Your task to perform on an android device: Open Google Chrome and open the bookmarks view Image 0: 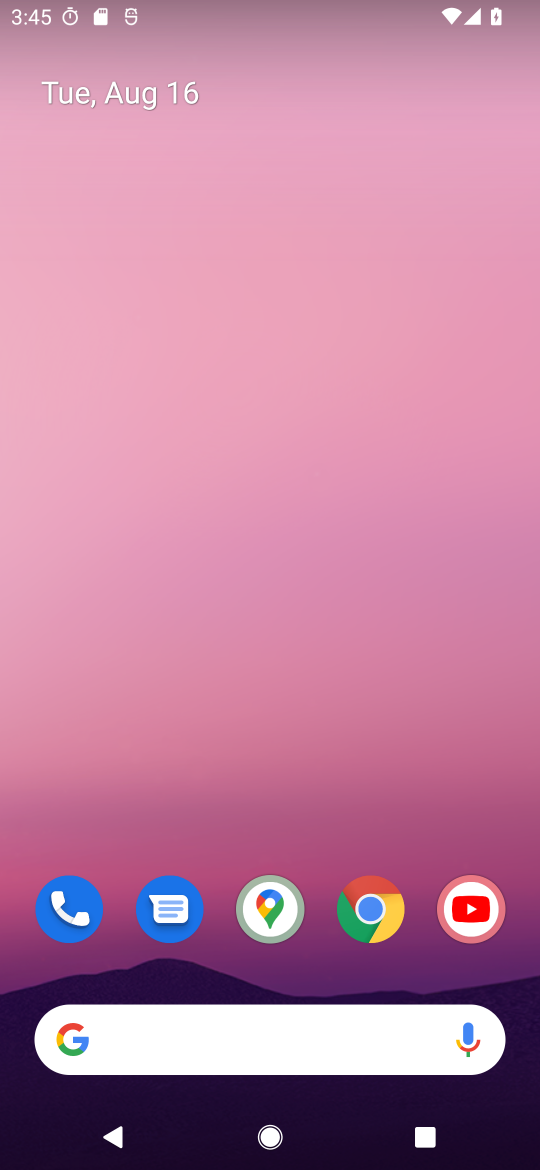
Step 0: click (368, 907)
Your task to perform on an android device: Open Google Chrome and open the bookmarks view Image 1: 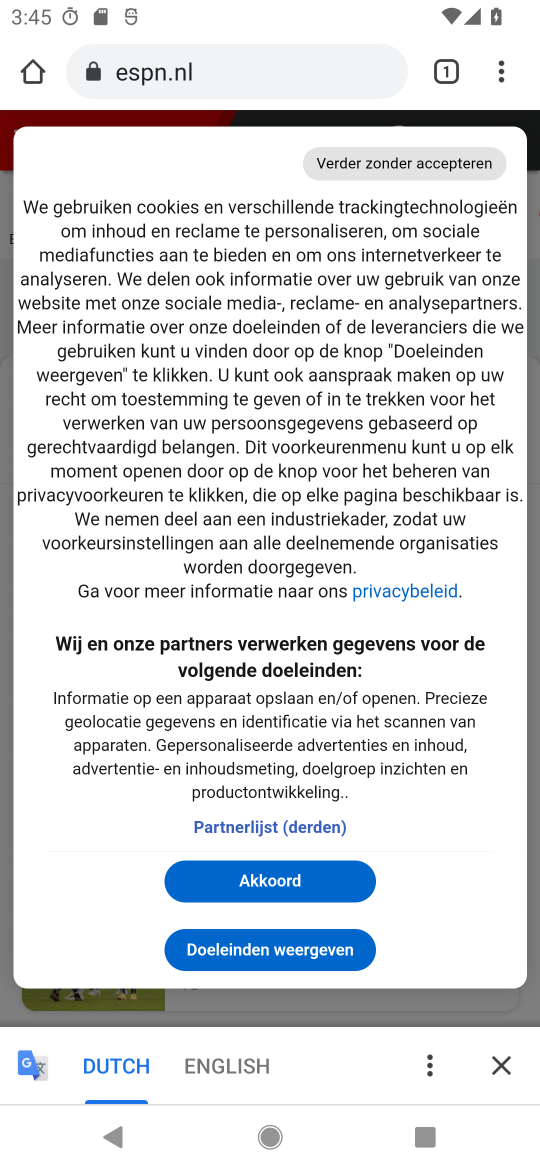
Step 1: click (500, 75)
Your task to perform on an android device: Open Google Chrome and open the bookmarks view Image 2: 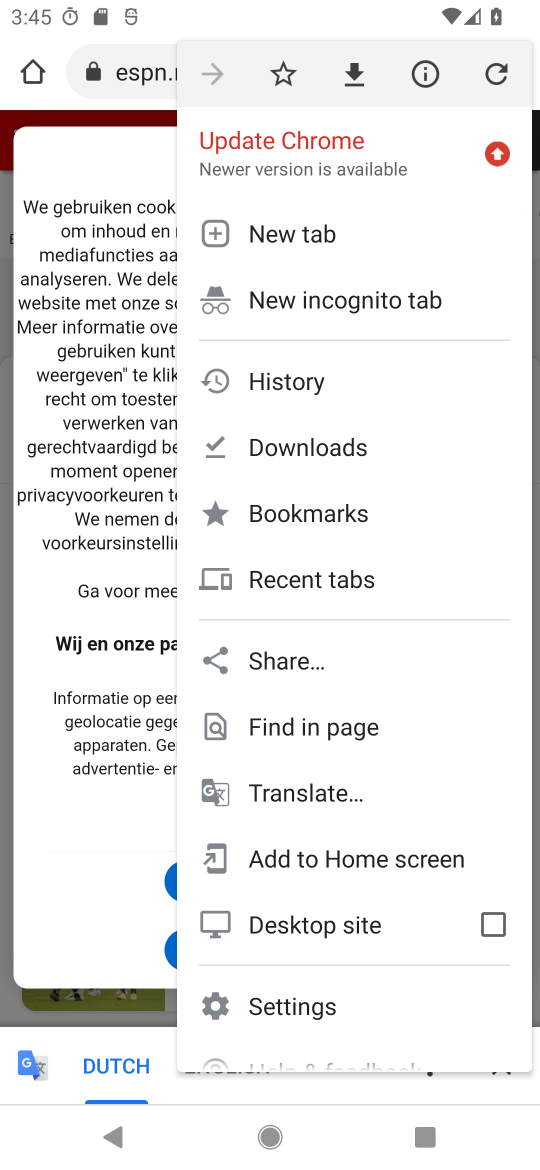
Step 2: click (292, 508)
Your task to perform on an android device: Open Google Chrome and open the bookmarks view Image 3: 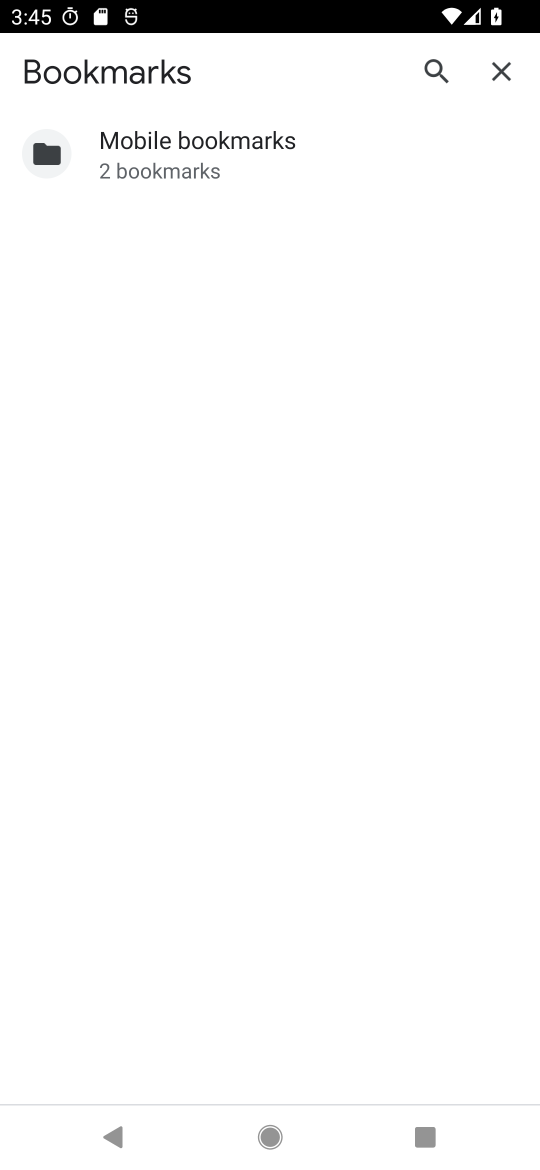
Step 3: click (162, 139)
Your task to perform on an android device: Open Google Chrome and open the bookmarks view Image 4: 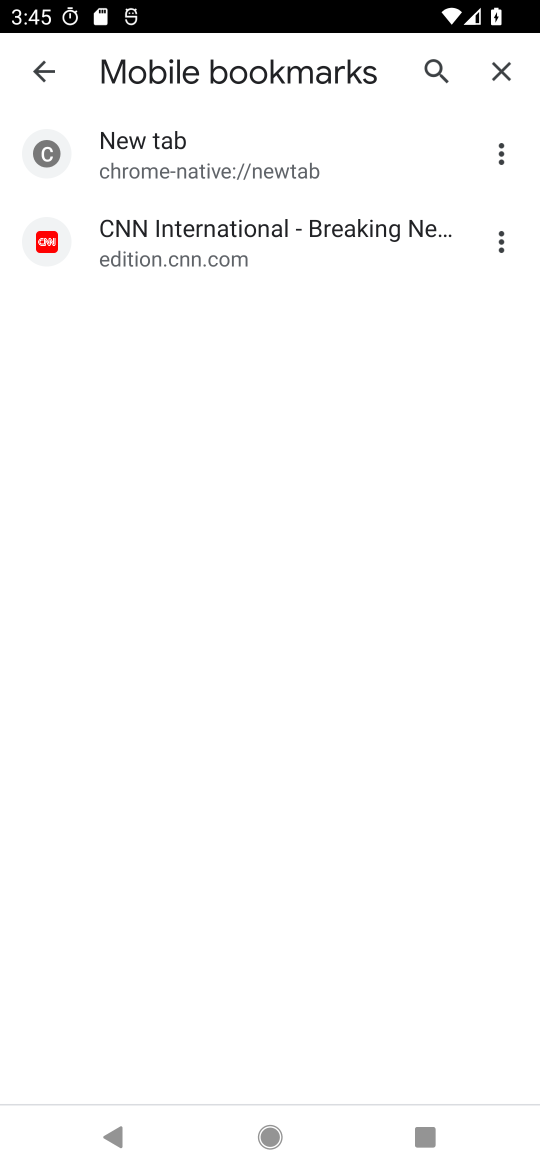
Step 4: click (157, 258)
Your task to perform on an android device: Open Google Chrome and open the bookmarks view Image 5: 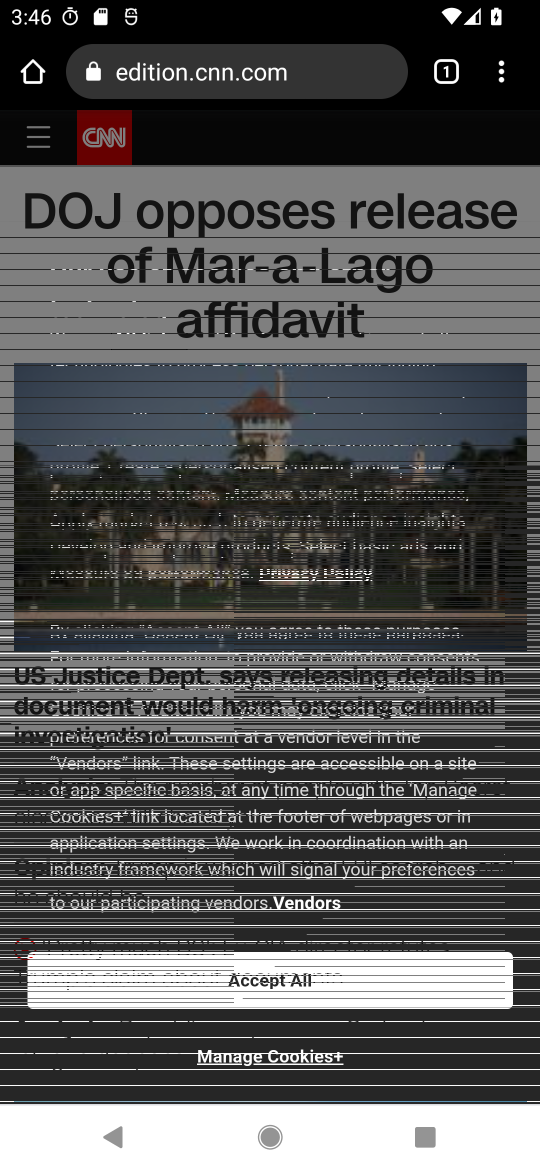
Step 5: task complete